Your task to perform on an android device: Open maps Image 0: 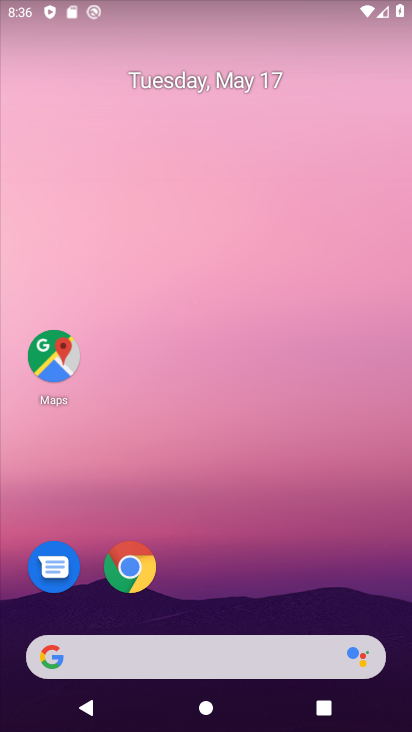
Step 0: click (60, 362)
Your task to perform on an android device: Open maps Image 1: 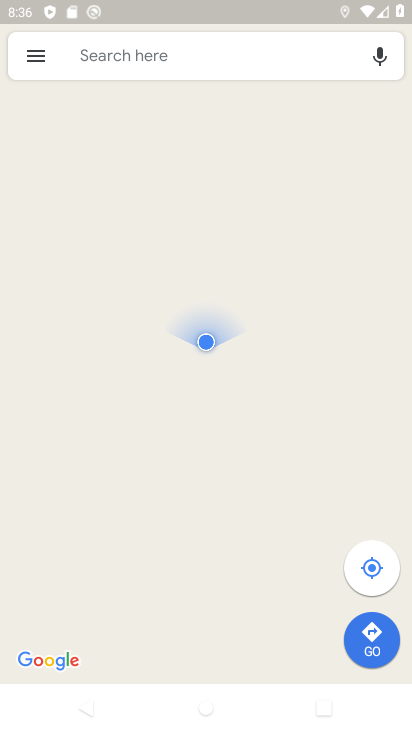
Step 1: task complete